Your task to perform on an android device: Go to Android settings Image 0: 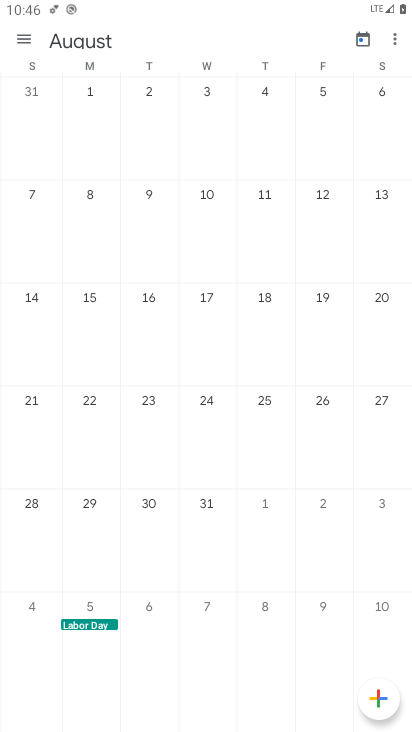
Step 0: press home button
Your task to perform on an android device: Go to Android settings Image 1: 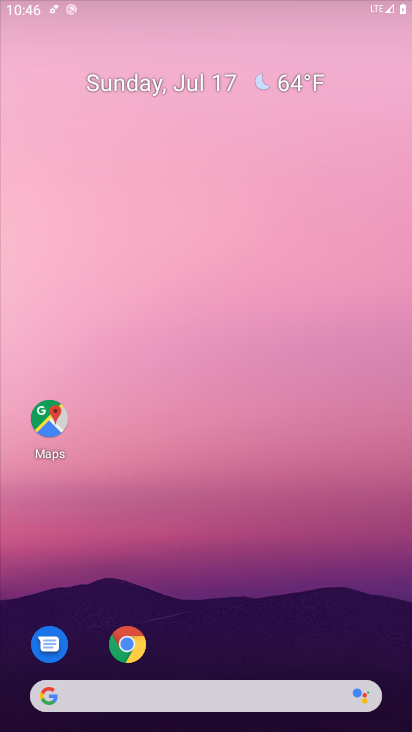
Step 1: drag from (274, 657) to (307, 37)
Your task to perform on an android device: Go to Android settings Image 2: 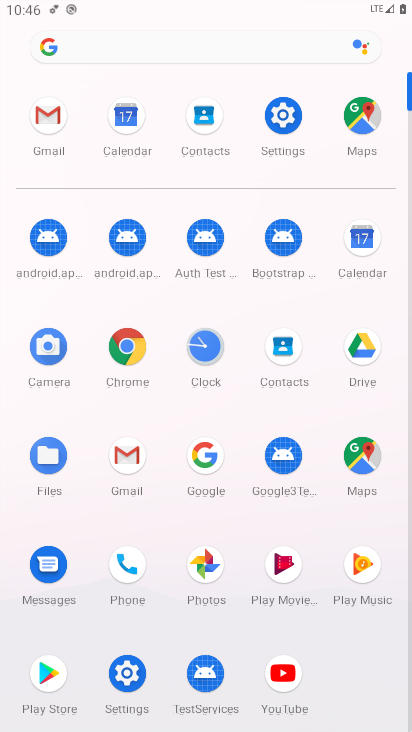
Step 2: click (285, 116)
Your task to perform on an android device: Go to Android settings Image 3: 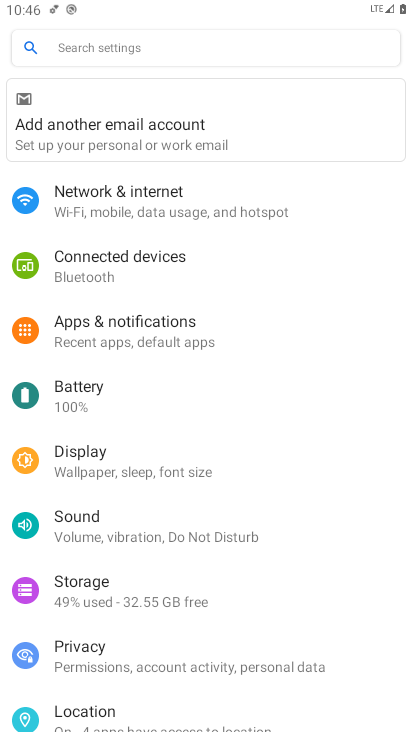
Step 3: task complete